Your task to perform on an android device: see sites visited before in the chrome app Image 0: 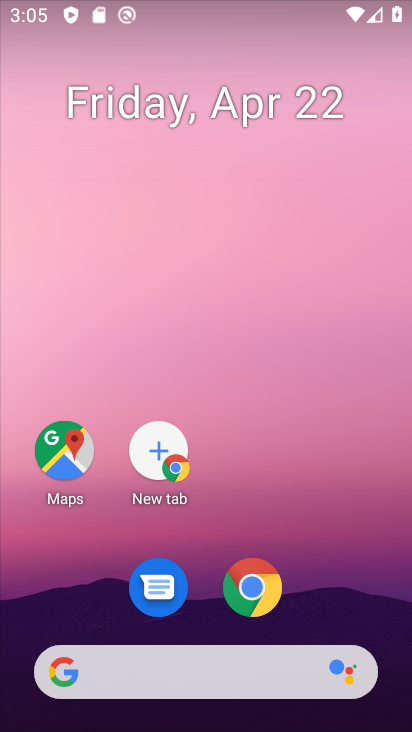
Step 0: click (250, 591)
Your task to perform on an android device: see sites visited before in the chrome app Image 1: 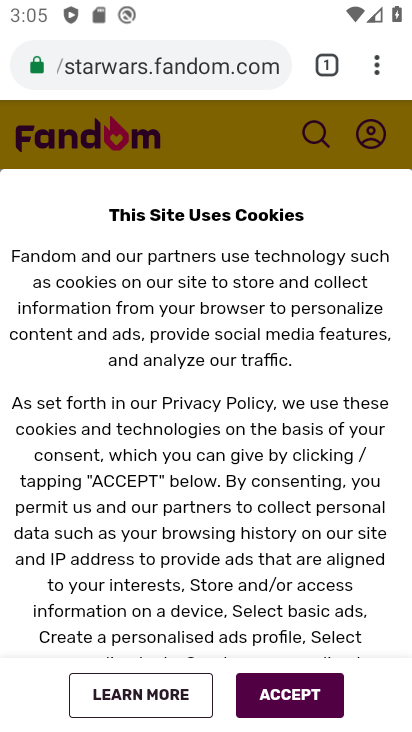
Step 1: click (375, 65)
Your task to perform on an android device: see sites visited before in the chrome app Image 2: 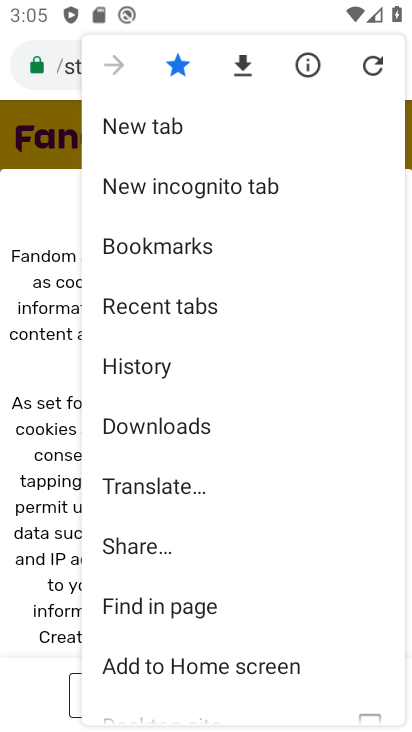
Step 2: click (213, 301)
Your task to perform on an android device: see sites visited before in the chrome app Image 3: 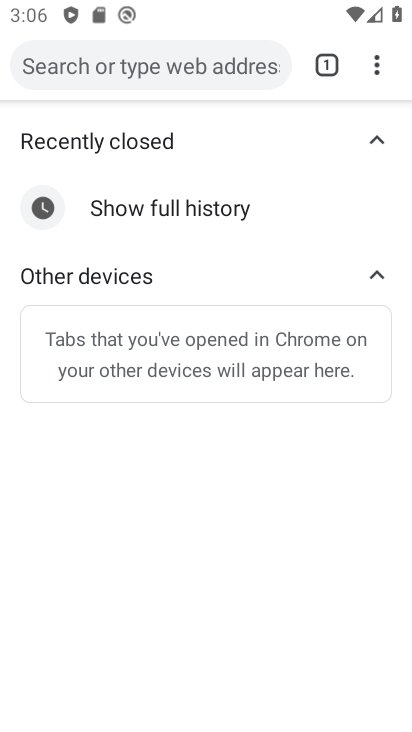
Step 3: task complete